Your task to perform on an android device: Go to Maps Image 0: 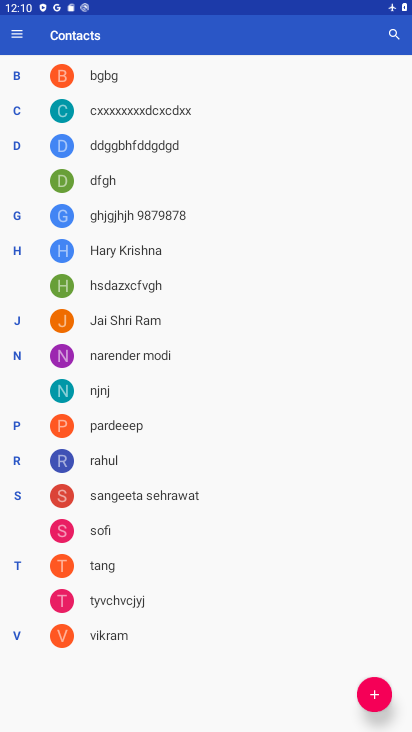
Step 0: press home button
Your task to perform on an android device: Go to Maps Image 1: 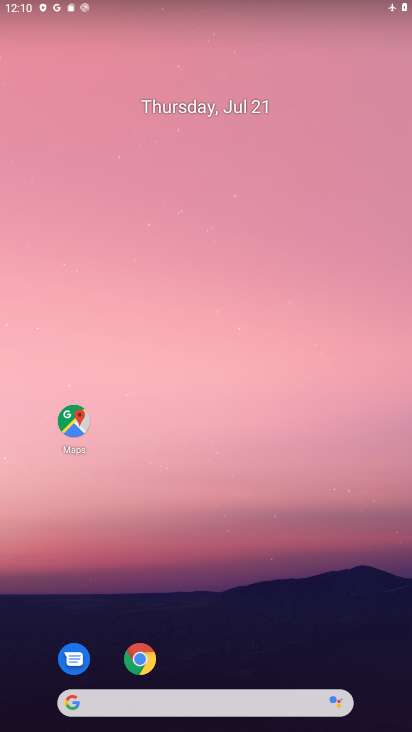
Step 1: drag from (323, 640) to (300, 174)
Your task to perform on an android device: Go to Maps Image 2: 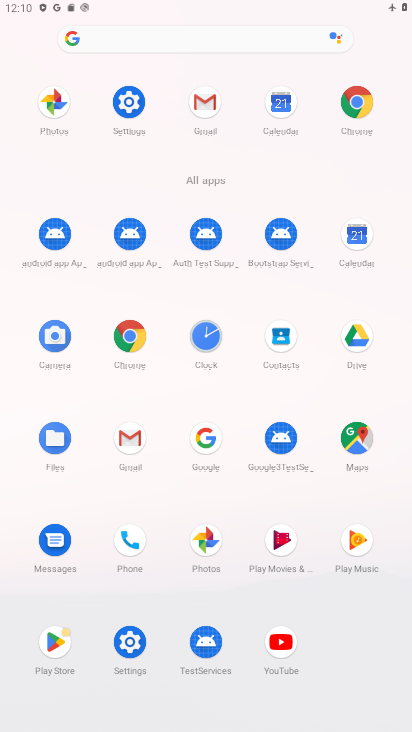
Step 2: click (358, 447)
Your task to perform on an android device: Go to Maps Image 3: 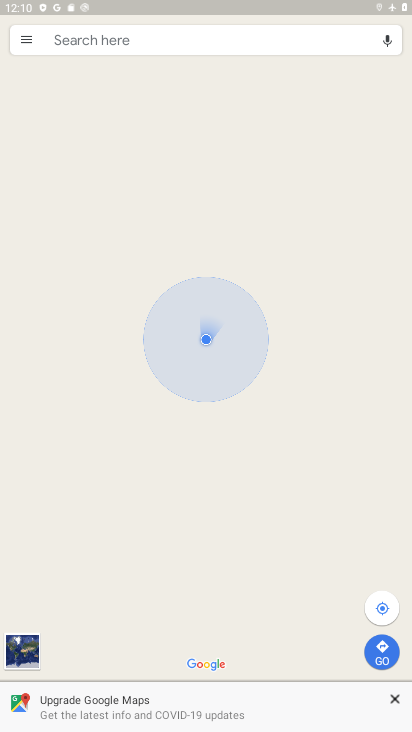
Step 3: task complete